Your task to perform on an android device: Open the calendar and show me this week's events? Image 0: 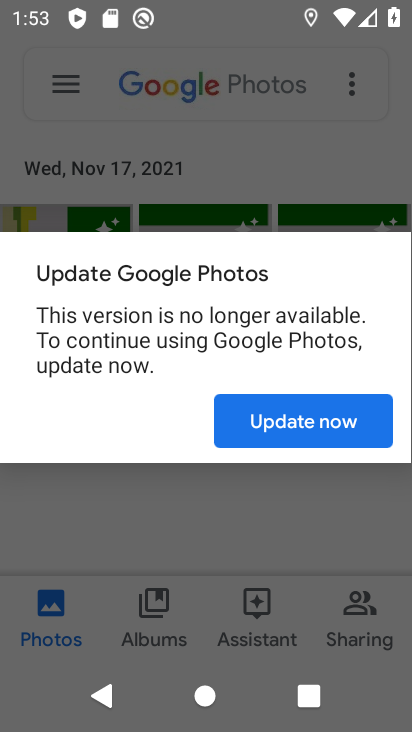
Step 0: press home button
Your task to perform on an android device: Open the calendar and show me this week's events? Image 1: 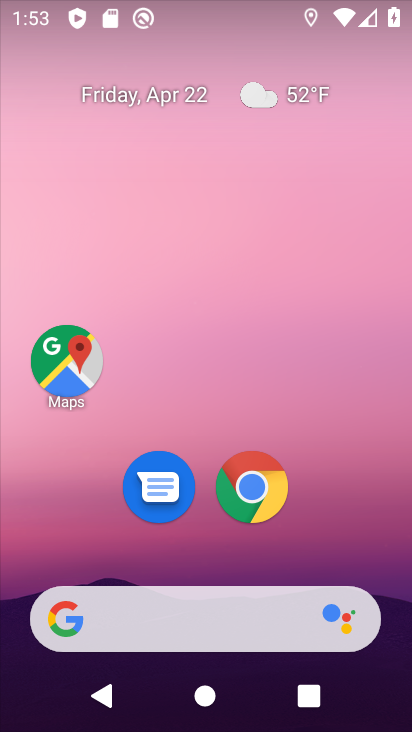
Step 1: drag from (201, 501) to (281, 1)
Your task to perform on an android device: Open the calendar and show me this week's events? Image 2: 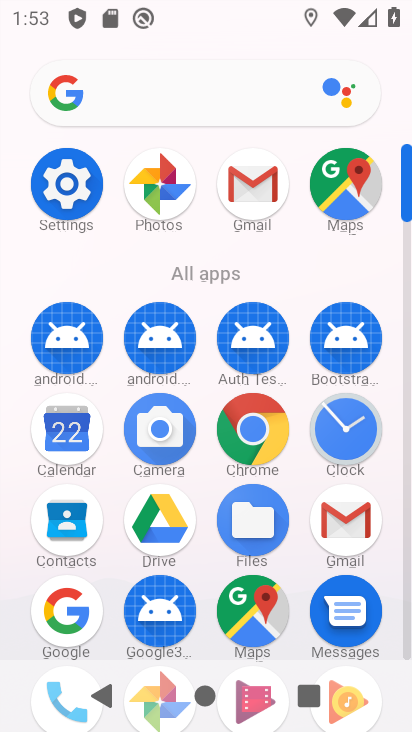
Step 2: drag from (215, 553) to (243, 21)
Your task to perform on an android device: Open the calendar and show me this week's events? Image 3: 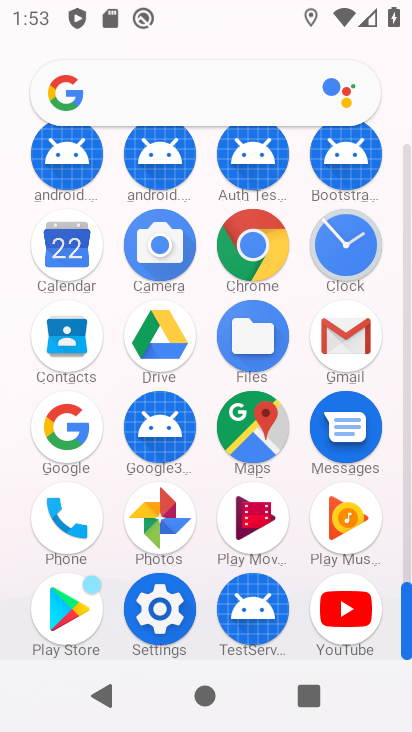
Step 3: click (70, 259)
Your task to perform on an android device: Open the calendar and show me this week's events? Image 4: 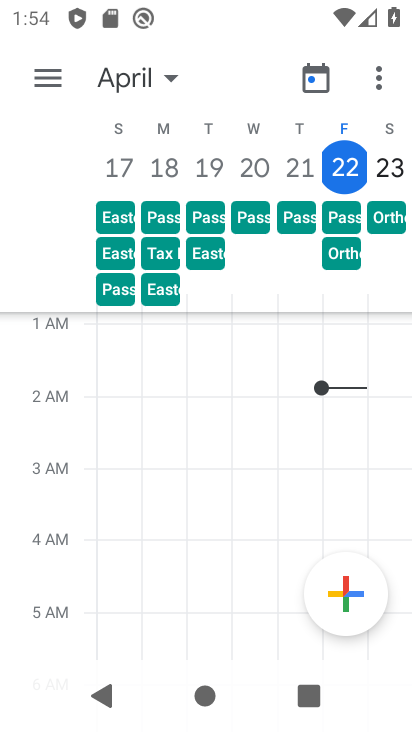
Step 4: click (40, 79)
Your task to perform on an android device: Open the calendar and show me this week's events? Image 5: 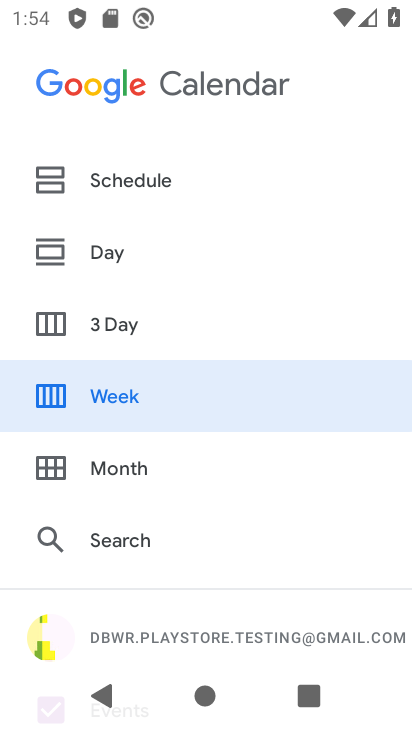
Step 5: drag from (90, 437) to (190, 17)
Your task to perform on an android device: Open the calendar and show me this week's events? Image 6: 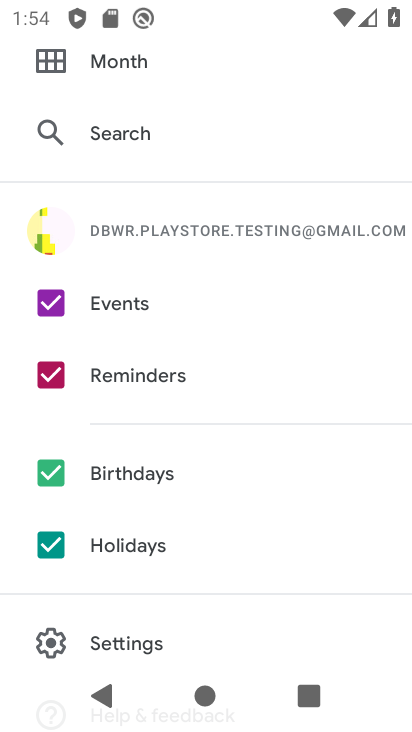
Step 6: click (106, 378)
Your task to perform on an android device: Open the calendar and show me this week's events? Image 7: 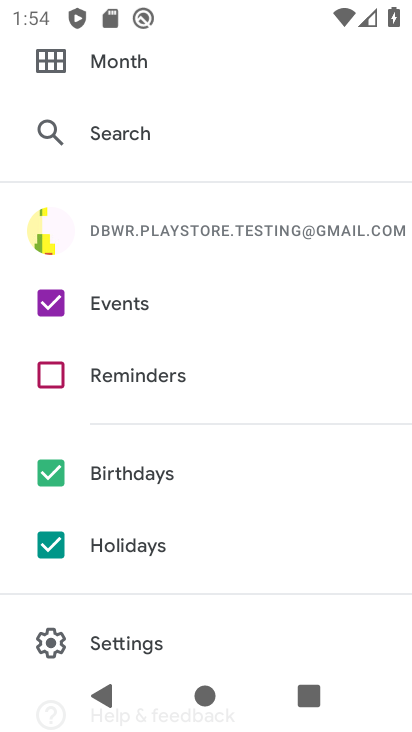
Step 7: click (108, 492)
Your task to perform on an android device: Open the calendar and show me this week's events? Image 8: 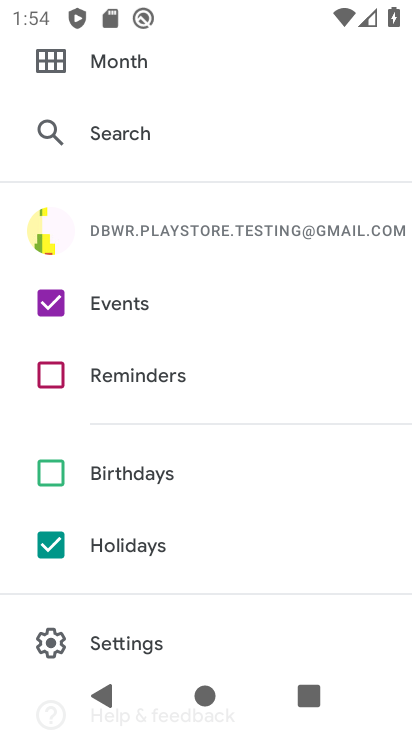
Step 8: click (107, 551)
Your task to perform on an android device: Open the calendar and show me this week's events? Image 9: 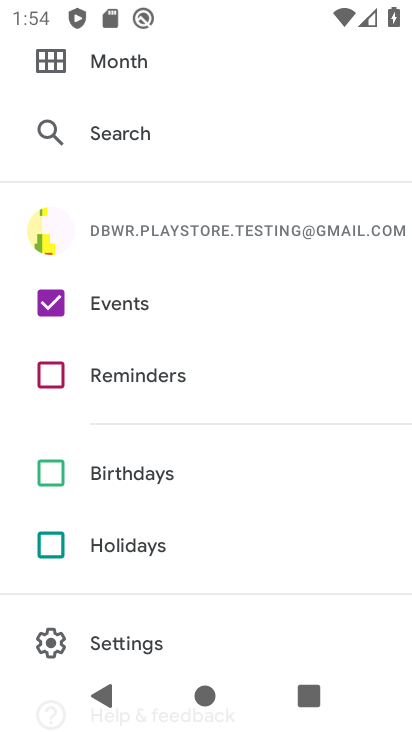
Step 9: drag from (178, 82) to (141, 473)
Your task to perform on an android device: Open the calendar and show me this week's events? Image 10: 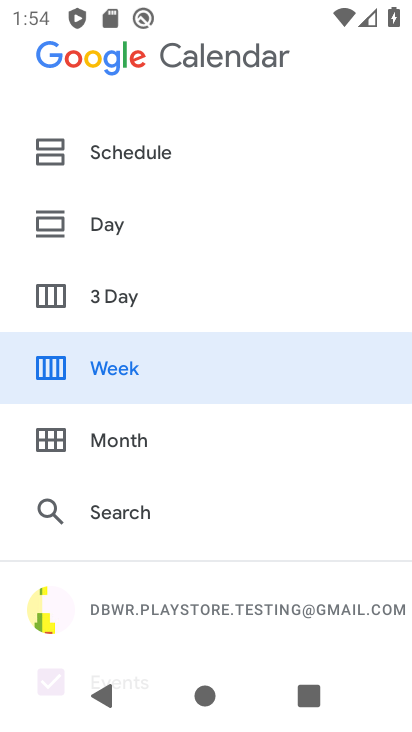
Step 10: click (111, 374)
Your task to perform on an android device: Open the calendar and show me this week's events? Image 11: 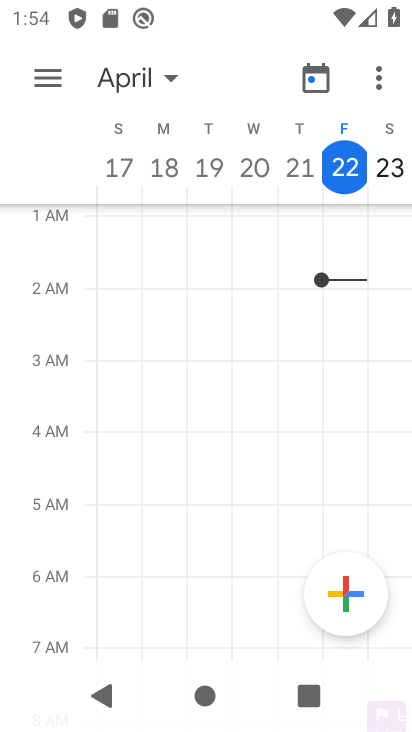
Step 11: task complete